Your task to perform on an android device: Go to network settings Image 0: 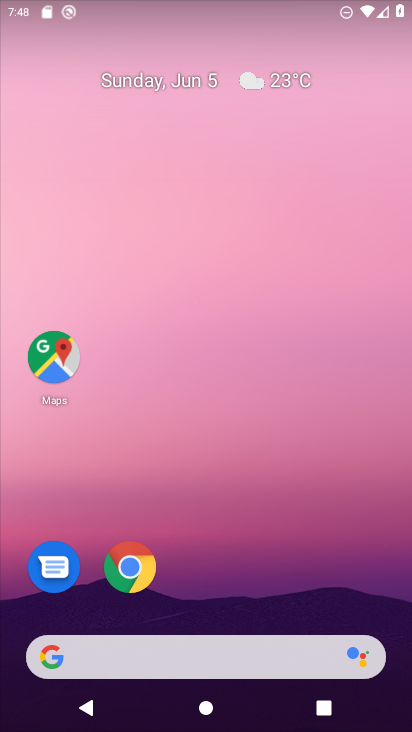
Step 0: drag from (401, 657) to (241, 7)
Your task to perform on an android device: Go to network settings Image 1: 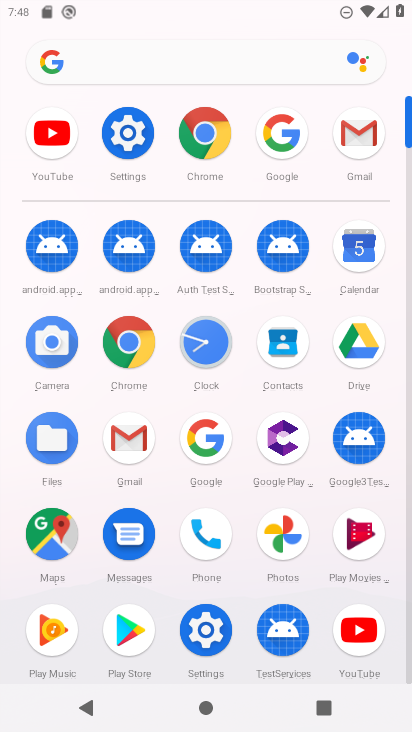
Step 1: click (136, 142)
Your task to perform on an android device: Go to network settings Image 2: 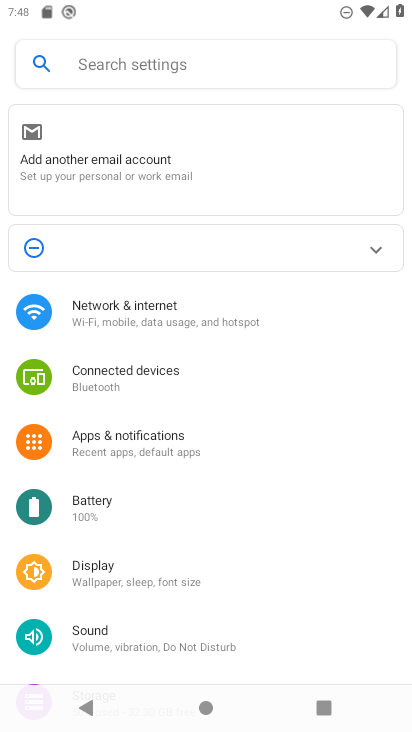
Step 2: click (123, 301)
Your task to perform on an android device: Go to network settings Image 3: 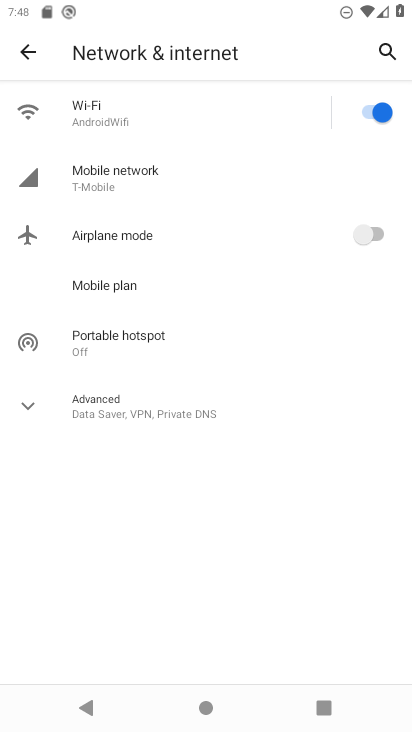
Step 3: task complete